Your task to perform on an android device: Turn on the flashlight Image 0: 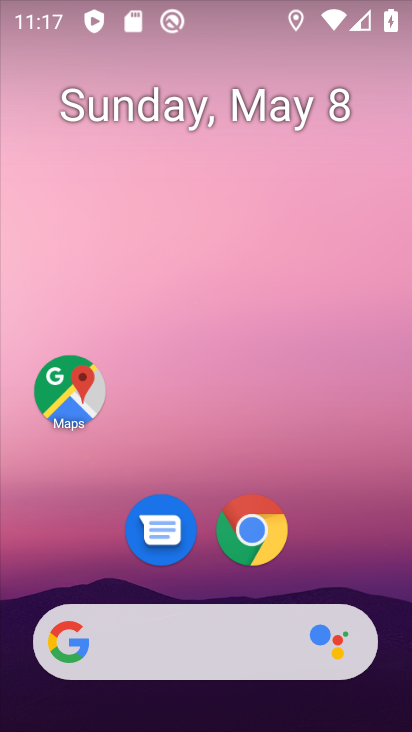
Step 0: drag from (308, 579) to (385, 0)
Your task to perform on an android device: Turn on the flashlight Image 1: 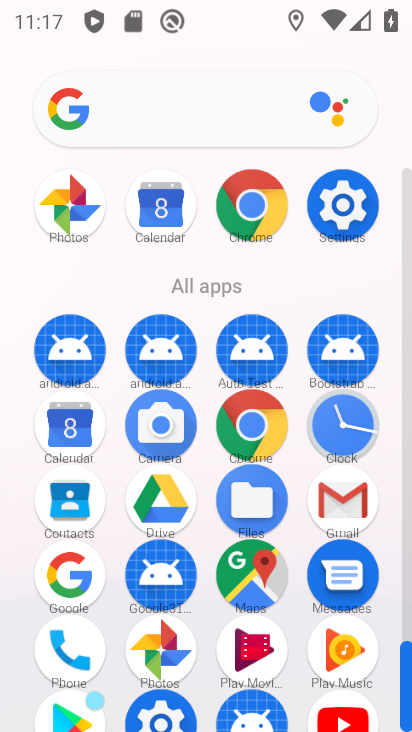
Step 1: drag from (296, 635) to (301, 339)
Your task to perform on an android device: Turn on the flashlight Image 2: 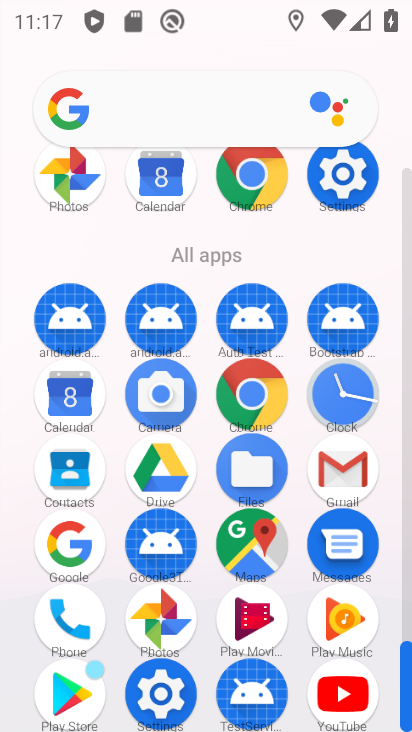
Step 2: drag from (288, 287) to (292, 546)
Your task to perform on an android device: Turn on the flashlight Image 3: 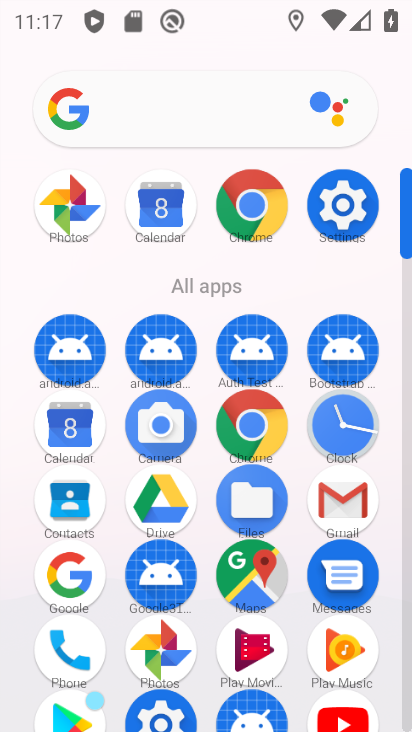
Step 3: drag from (285, 701) to (302, 417)
Your task to perform on an android device: Turn on the flashlight Image 4: 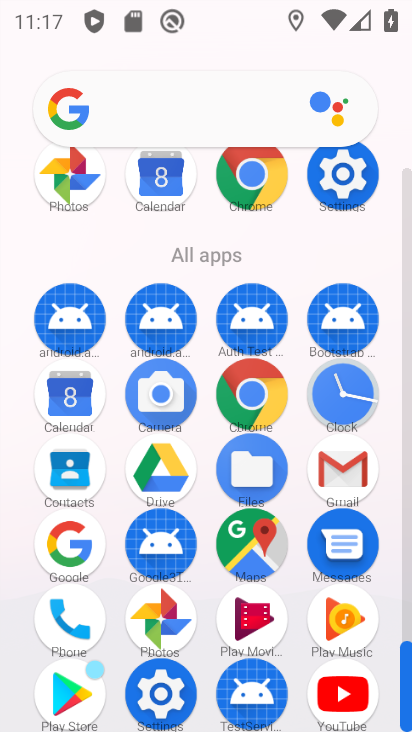
Step 4: click (172, 681)
Your task to perform on an android device: Turn on the flashlight Image 5: 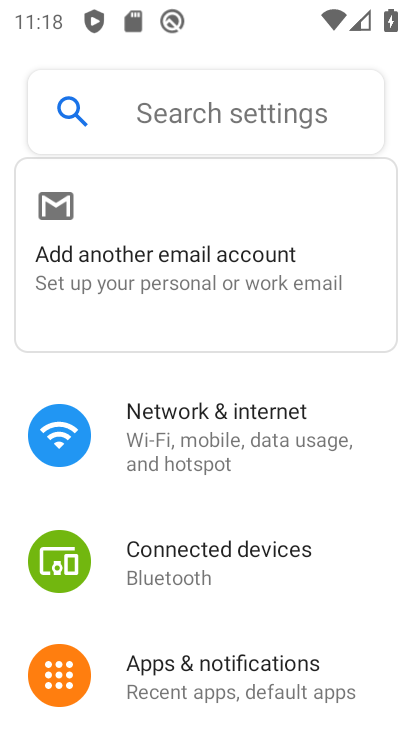
Step 5: task complete